Your task to perform on an android device: delete the emails in spam in the gmail app Image 0: 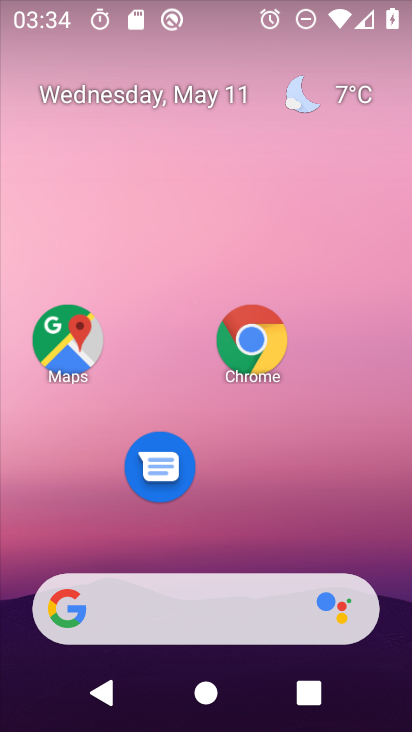
Step 0: drag from (170, 611) to (339, 109)
Your task to perform on an android device: delete the emails in spam in the gmail app Image 1: 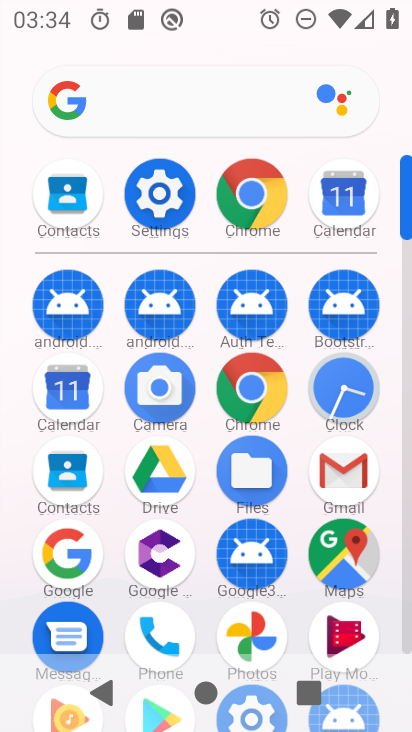
Step 1: click (337, 475)
Your task to perform on an android device: delete the emails in spam in the gmail app Image 2: 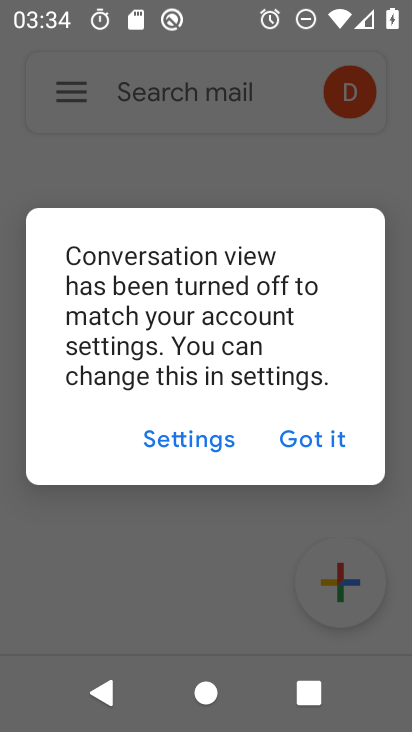
Step 2: click (295, 438)
Your task to perform on an android device: delete the emails in spam in the gmail app Image 3: 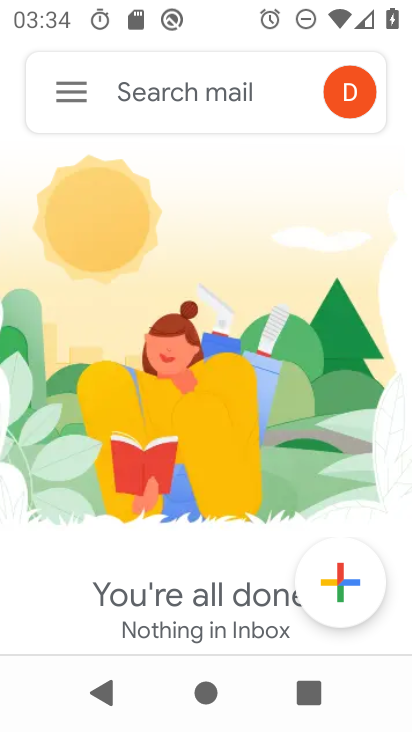
Step 3: click (75, 104)
Your task to perform on an android device: delete the emails in spam in the gmail app Image 4: 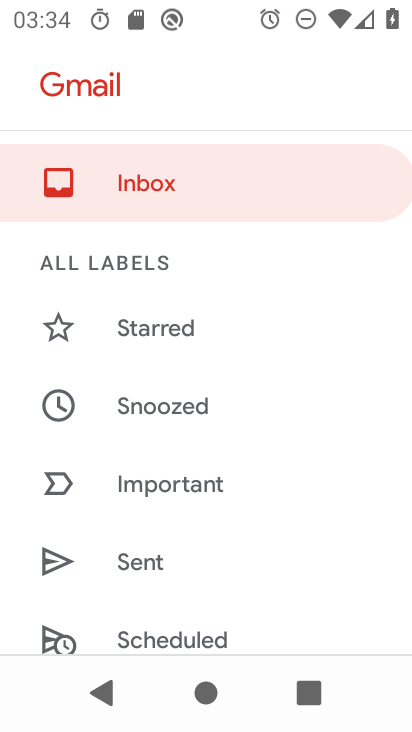
Step 4: drag from (188, 581) to (273, 175)
Your task to perform on an android device: delete the emails in spam in the gmail app Image 5: 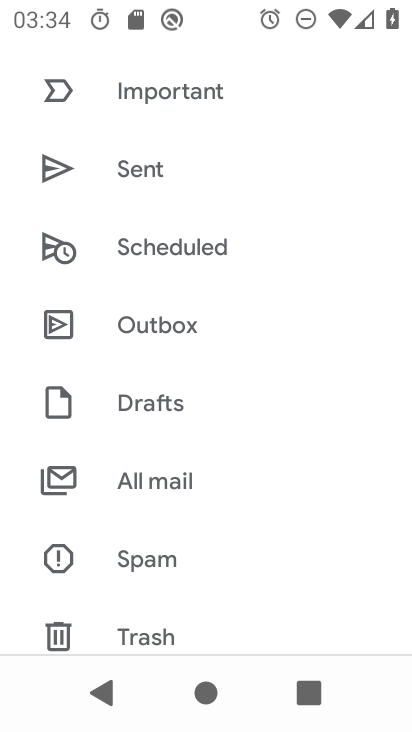
Step 5: click (144, 562)
Your task to perform on an android device: delete the emails in spam in the gmail app Image 6: 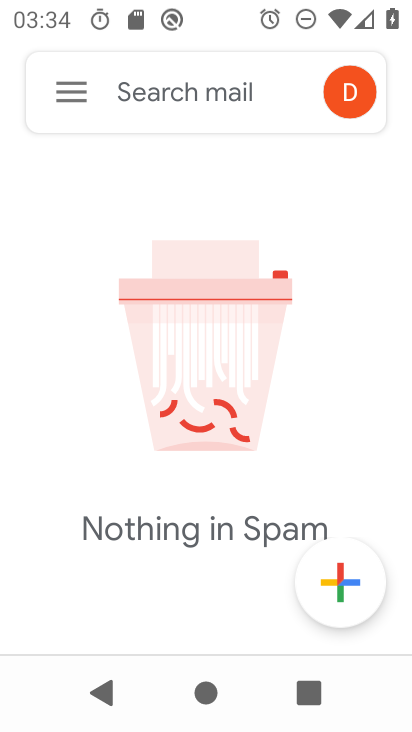
Step 6: task complete